Your task to perform on an android device: Search for vegetarian restaurants on Maps Image 0: 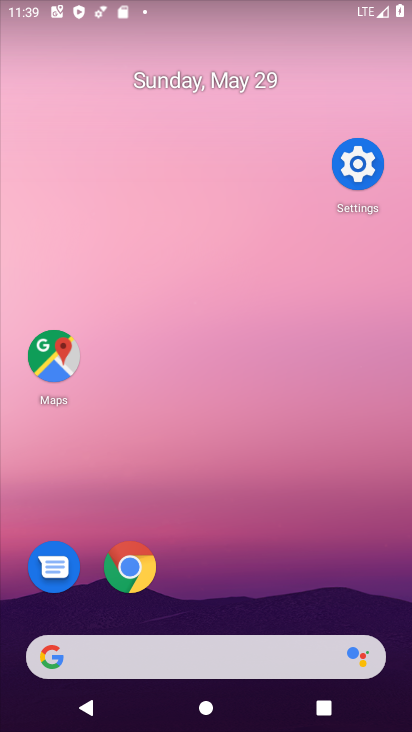
Step 0: drag from (304, 530) to (282, 173)
Your task to perform on an android device: Search for vegetarian restaurants on Maps Image 1: 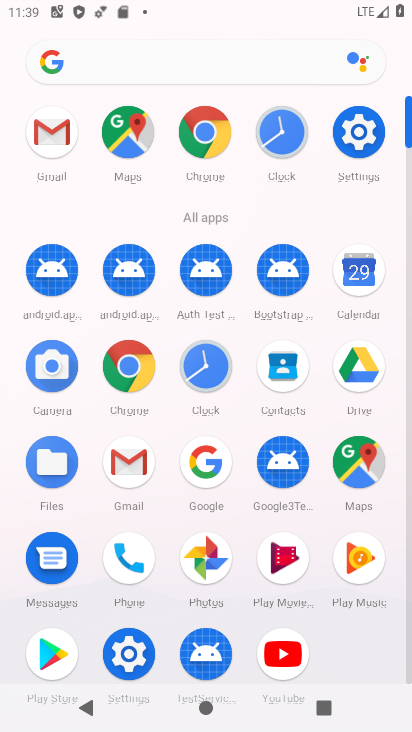
Step 1: click (134, 675)
Your task to perform on an android device: Search for vegetarian restaurants on Maps Image 2: 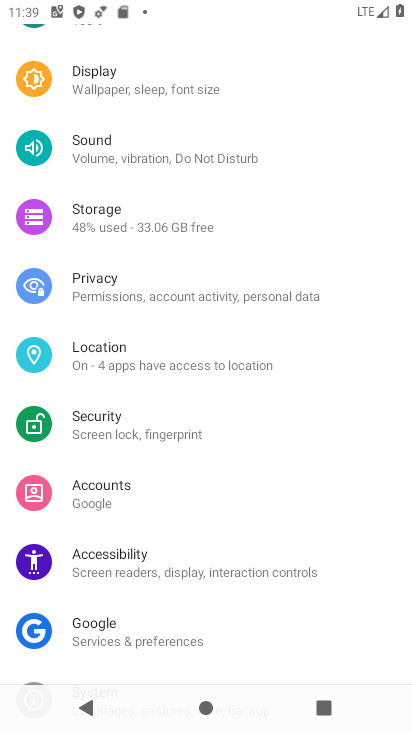
Step 2: press home button
Your task to perform on an android device: Search for vegetarian restaurants on Maps Image 3: 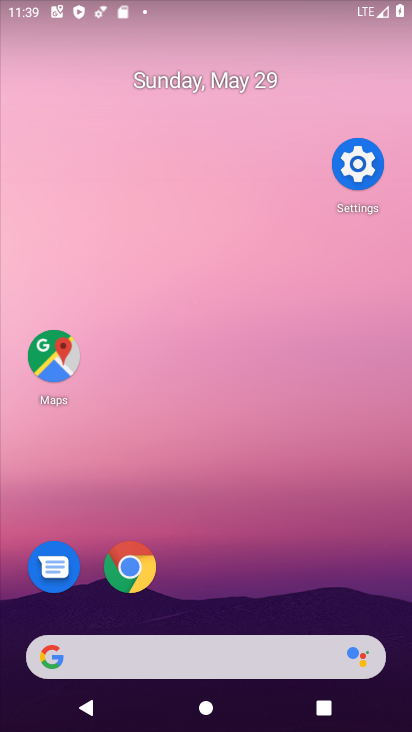
Step 3: drag from (305, 573) to (295, 178)
Your task to perform on an android device: Search for vegetarian restaurants on Maps Image 4: 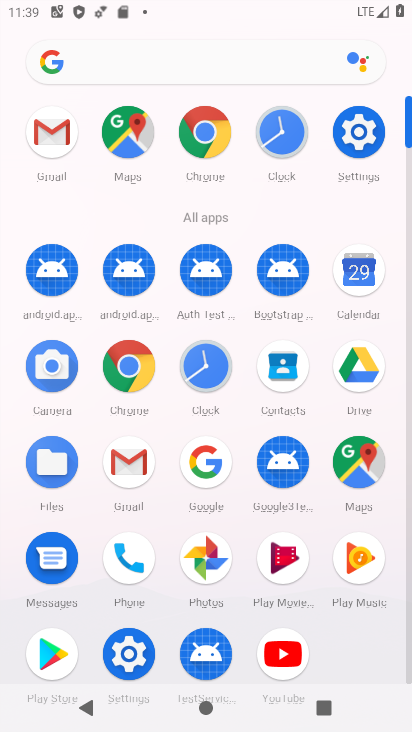
Step 4: click (362, 449)
Your task to perform on an android device: Search for vegetarian restaurants on Maps Image 5: 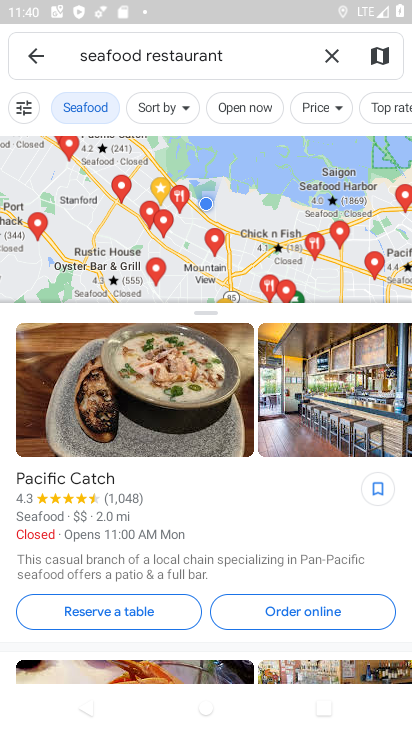
Step 5: click (330, 52)
Your task to perform on an android device: Search for vegetarian restaurants on Maps Image 6: 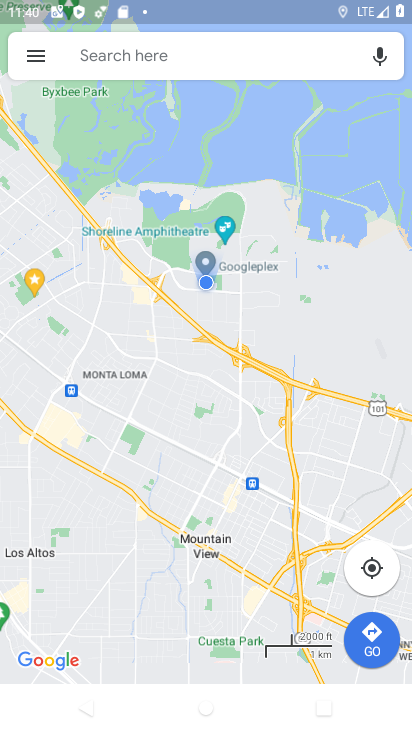
Step 6: click (252, 54)
Your task to perform on an android device: Search for vegetarian restaurants on Maps Image 7: 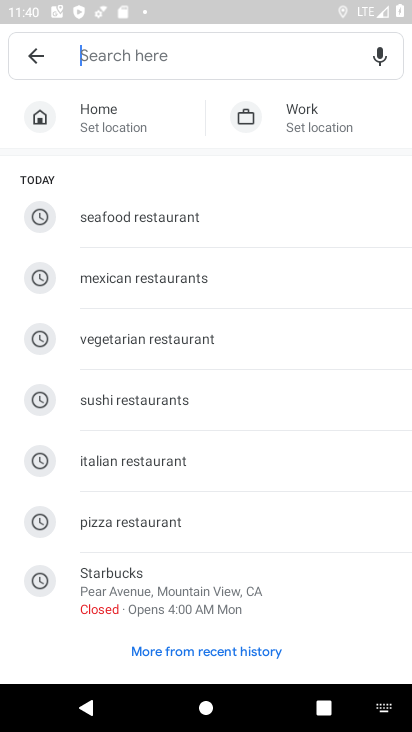
Step 7: click (213, 345)
Your task to perform on an android device: Search for vegetarian restaurants on Maps Image 8: 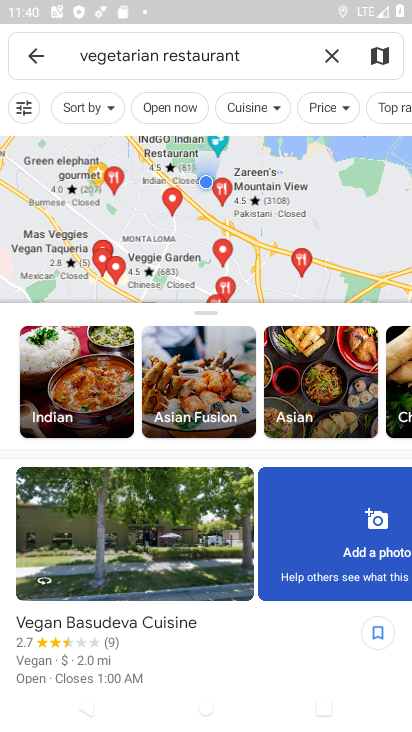
Step 8: task complete